Your task to perform on an android device: Check the weather Image 0: 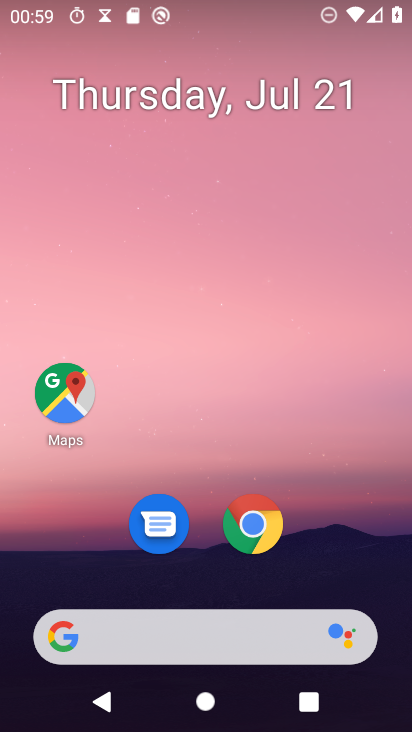
Step 0: click (163, 625)
Your task to perform on an android device: Check the weather Image 1: 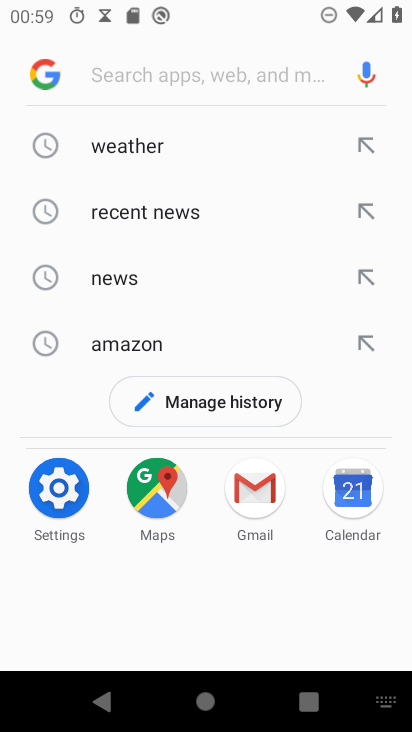
Step 1: click (142, 149)
Your task to perform on an android device: Check the weather Image 2: 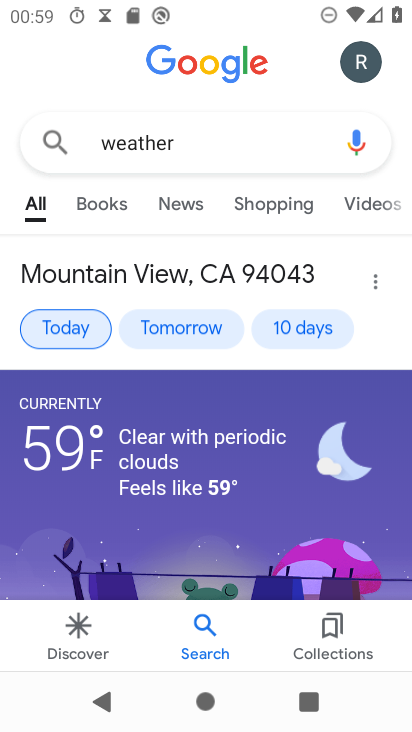
Step 2: task complete